Your task to perform on an android device: Show me the alarms in the clock app Image 0: 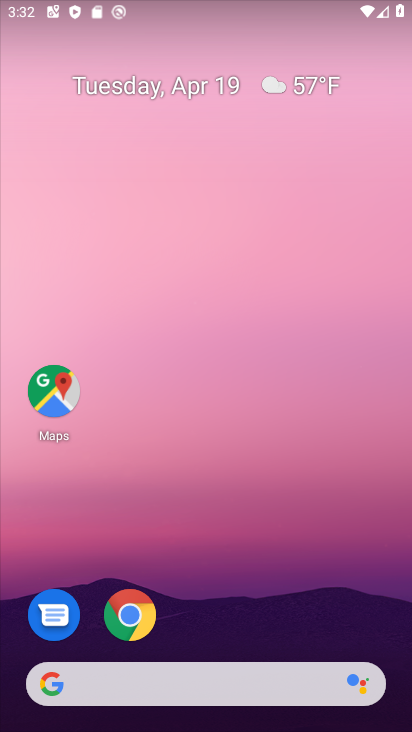
Step 0: drag from (190, 596) to (199, 335)
Your task to perform on an android device: Show me the alarms in the clock app Image 1: 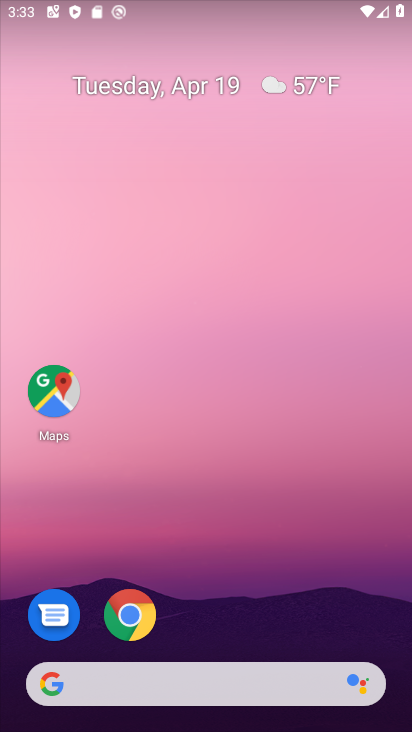
Step 1: drag from (234, 638) to (234, 215)
Your task to perform on an android device: Show me the alarms in the clock app Image 2: 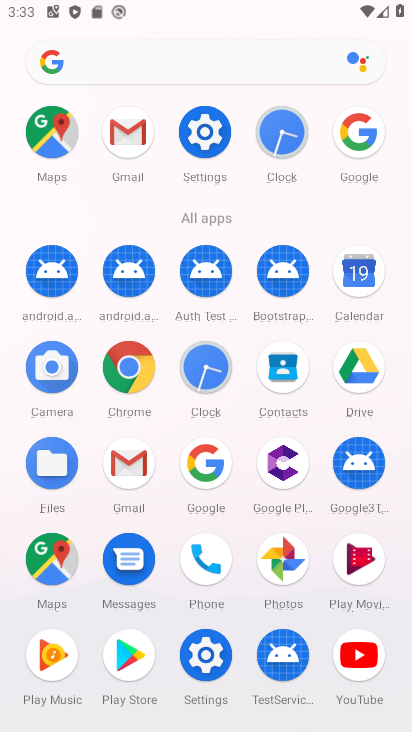
Step 2: click (293, 136)
Your task to perform on an android device: Show me the alarms in the clock app Image 3: 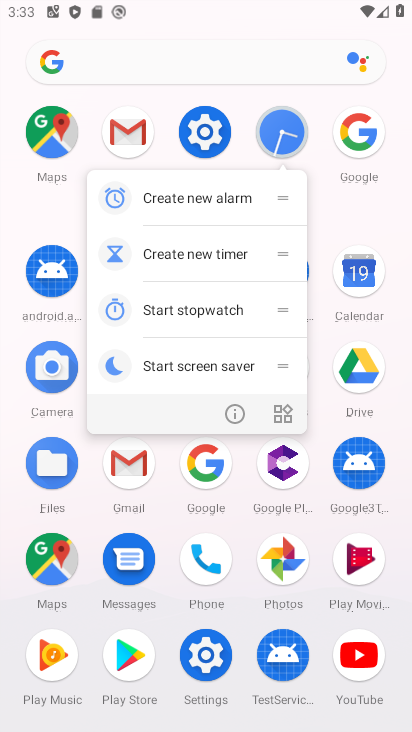
Step 3: click (293, 136)
Your task to perform on an android device: Show me the alarms in the clock app Image 4: 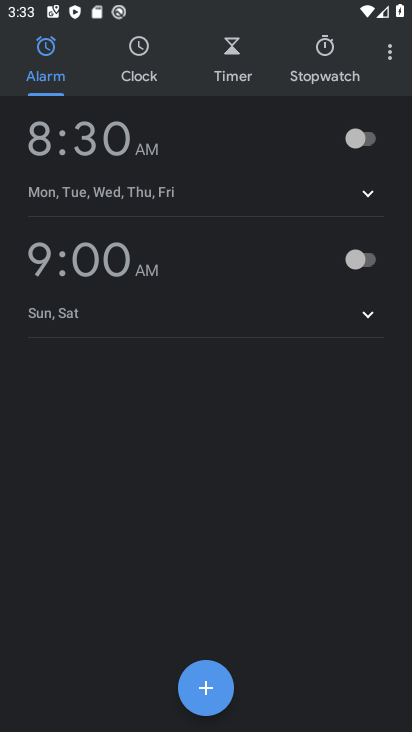
Step 4: task complete